Your task to perform on an android device: Open the Play Movies app and select the watchlist tab. Image 0: 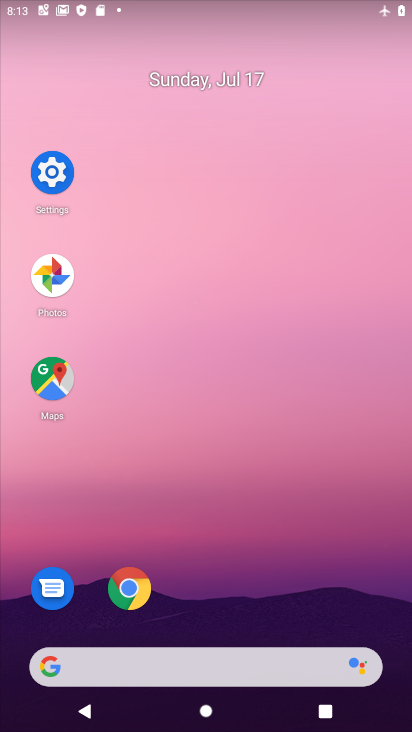
Step 0: drag from (262, 582) to (293, 276)
Your task to perform on an android device: Open the Play Movies app and select the watchlist tab. Image 1: 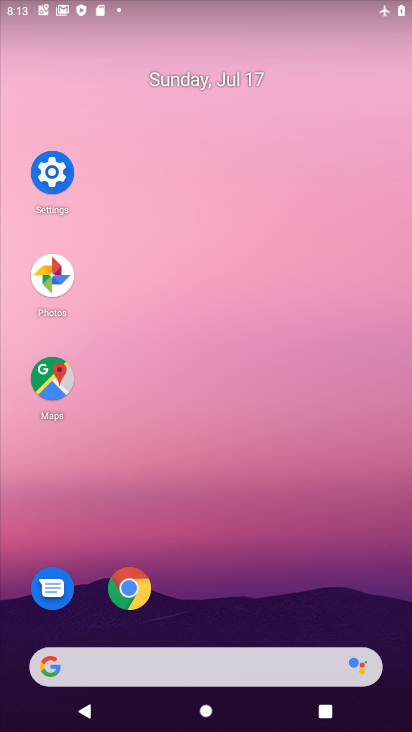
Step 1: drag from (200, 602) to (231, 163)
Your task to perform on an android device: Open the Play Movies app and select the watchlist tab. Image 2: 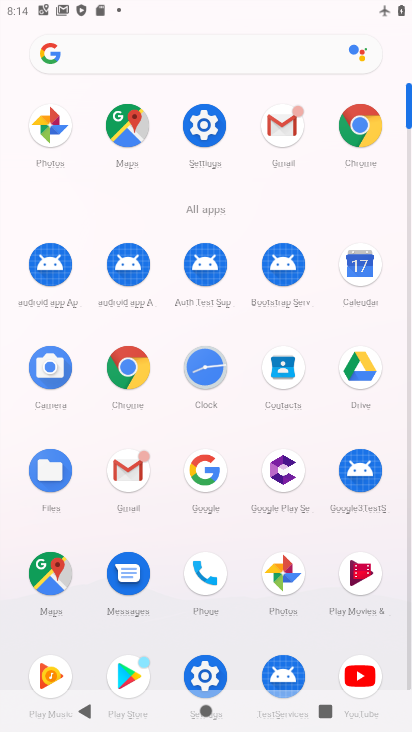
Step 2: drag from (248, 546) to (297, 247)
Your task to perform on an android device: Open the Play Movies app and select the watchlist tab. Image 3: 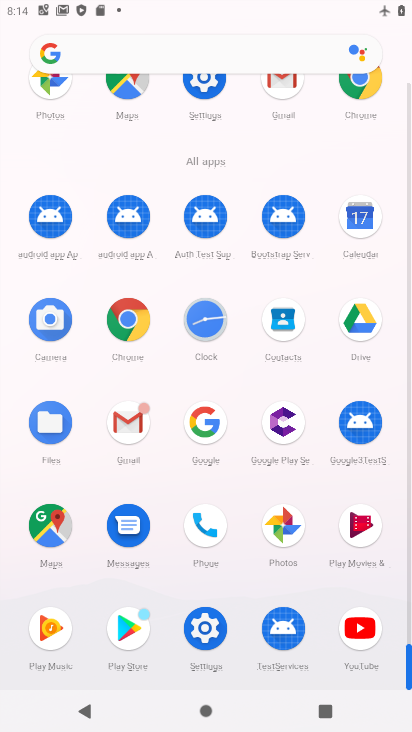
Step 3: click (363, 528)
Your task to perform on an android device: Open the Play Movies app and select the watchlist tab. Image 4: 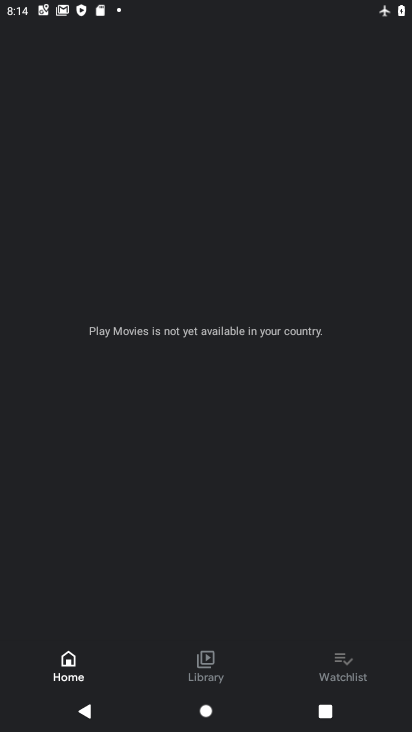
Step 4: click (335, 650)
Your task to perform on an android device: Open the Play Movies app and select the watchlist tab. Image 5: 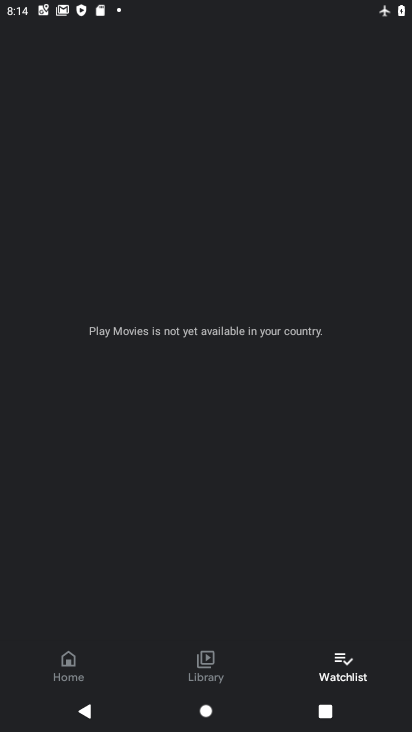
Step 5: task complete